Your task to perform on an android device: see sites visited before in the chrome app Image 0: 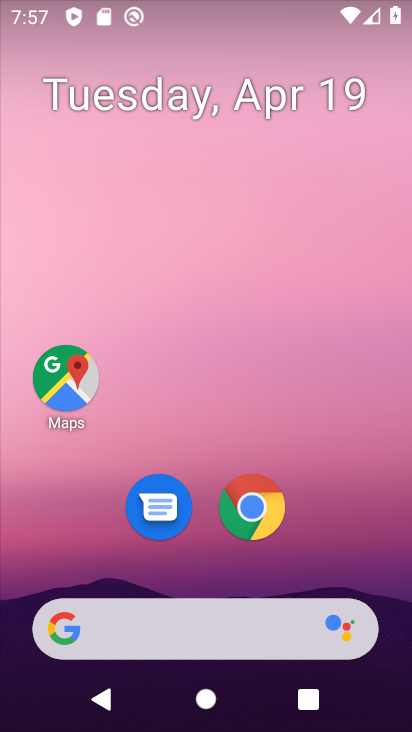
Step 0: click (259, 502)
Your task to perform on an android device: see sites visited before in the chrome app Image 1: 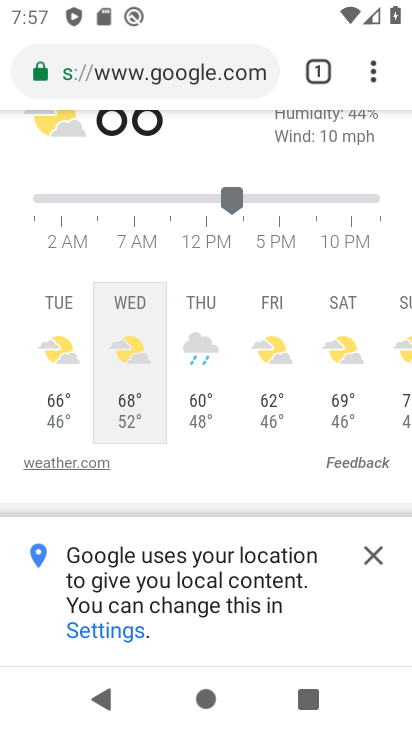
Step 1: click (378, 74)
Your task to perform on an android device: see sites visited before in the chrome app Image 2: 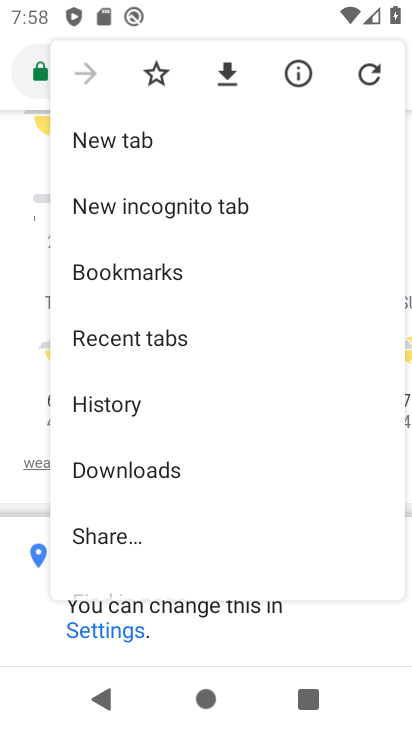
Step 2: click (116, 397)
Your task to perform on an android device: see sites visited before in the chrome app Image 3: 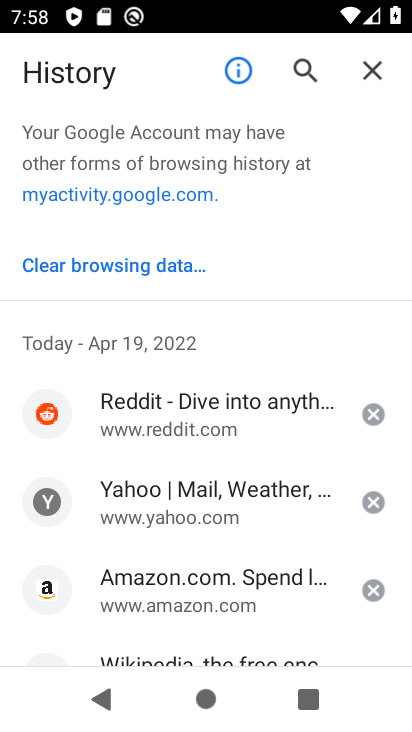
Step 3: task complete